Your task to perform on an android device: Go to Google Image 0: 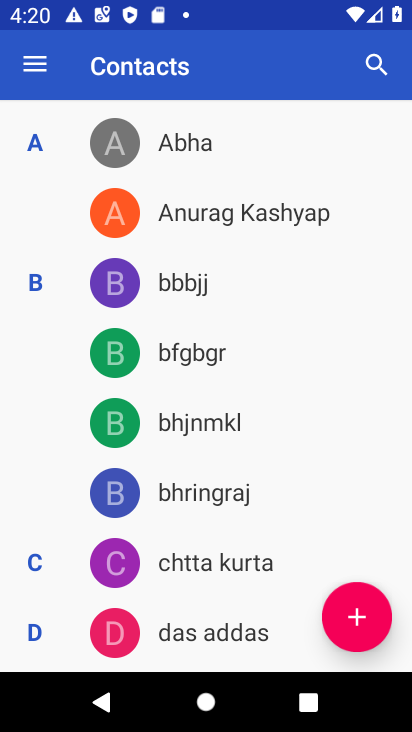
Step 0: press home button
Your task to perform on an android device: Go to Google Image 1: 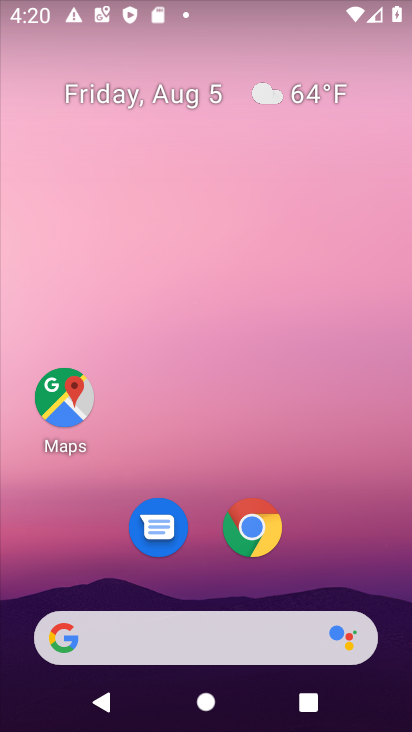
Step 1: drag from (214, 538) to (213, 64)
Your task to perform on an android device: Go to Google Image 2: 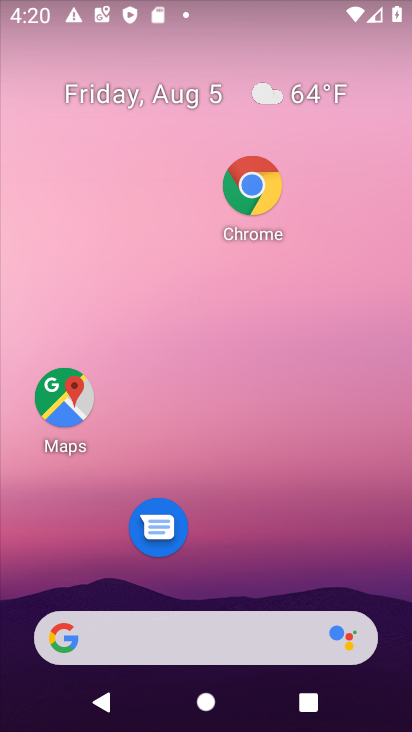
Step 2: drag from (219, 562) to (174, 131)
Your task to perform on an android device: Go to Google Image 3: 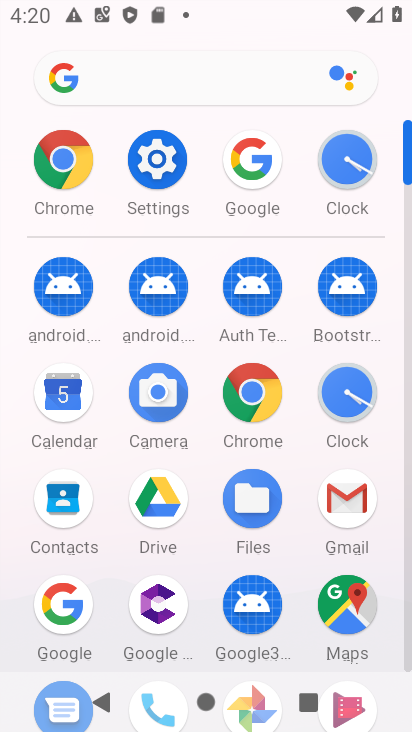
Step 3: click (260, 156)
Your task to perform on an android device: Go to Google Image 4: 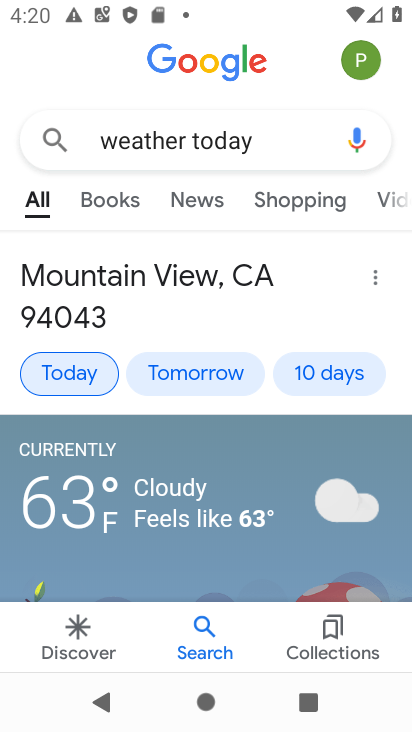
Step 4: task complete